Your task to perform on an android device: turn on the 12-hour format for clock Image 0: 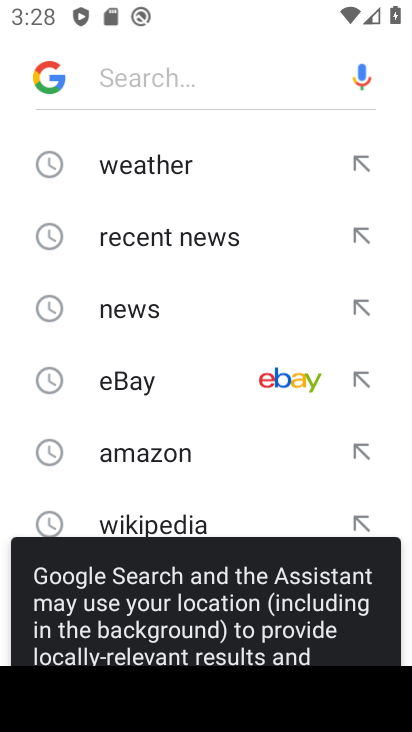
Step 0: press home button
Your task to perform on an android device: turn on the 12-hour format for clock Image 1: 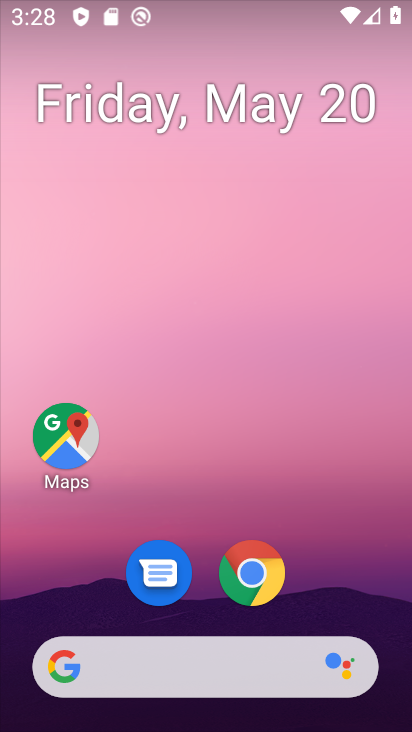
Step 1: drag from (390, 614) to (360, 108)
Your task to perform on an android device: turn on the 12-hour format for clock Image 2: 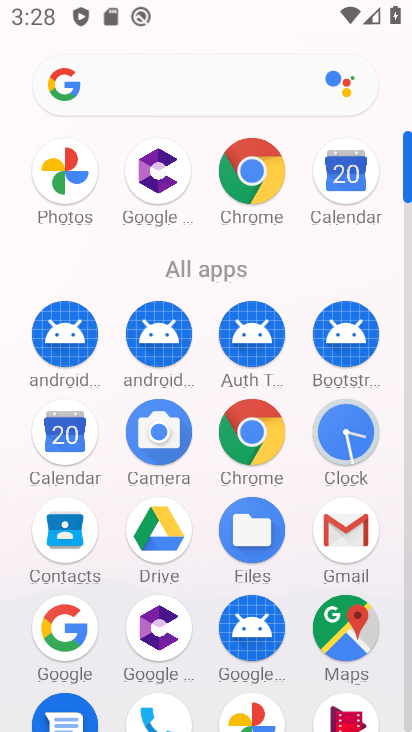
Step 2: click (343, 429)
Your task to perform on an android device: turn on the 12-hour format for clock Image 3: 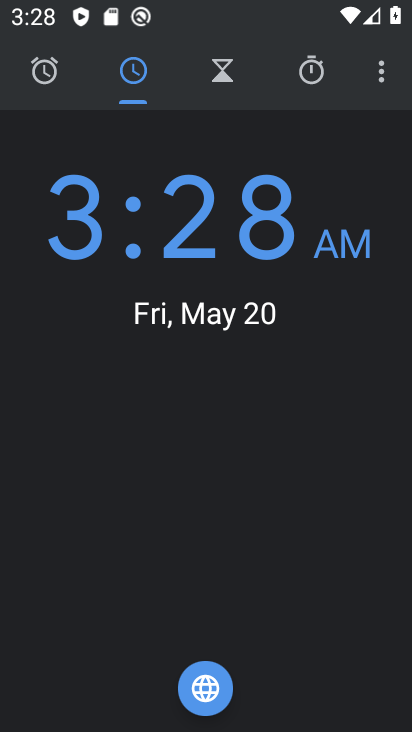
Step 3: click (379, 73)
Your task to perform on an android device: turn on the 12-hour format for clock Image 4: 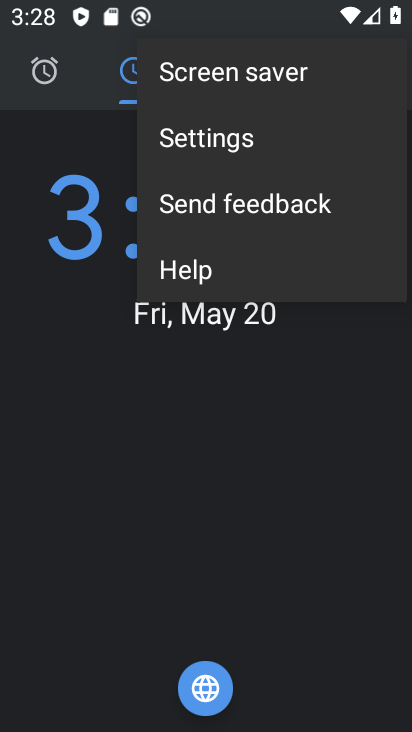
Step 4: click (188, 133)
Your task to perform on an android device: turn on the 12-hour format for clock Image 5: 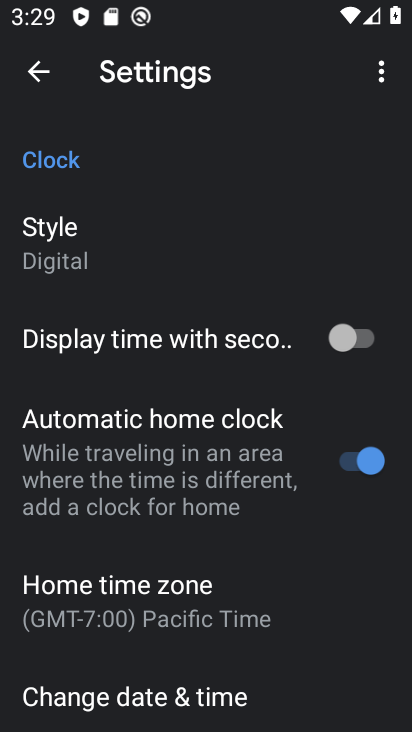
Step 5: drag from (278, 570) to (258, 195)
Your task to perform on an android device: turn on the 12-hour format for clock Image 6: 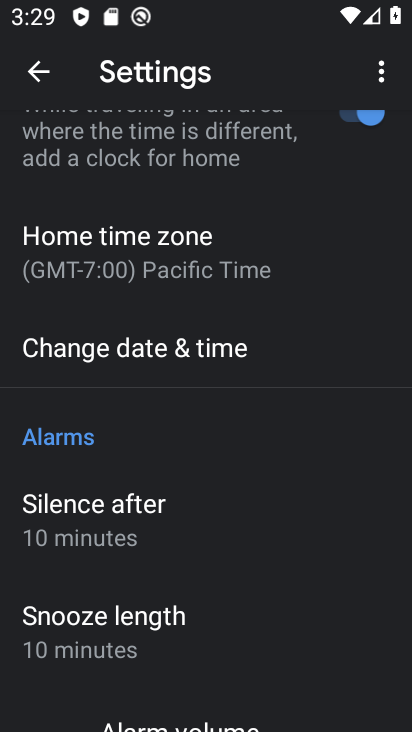
Step 6: click (155, 344)
Your task to perform on an android device: turn on the 12-hour format for clock Image 7: 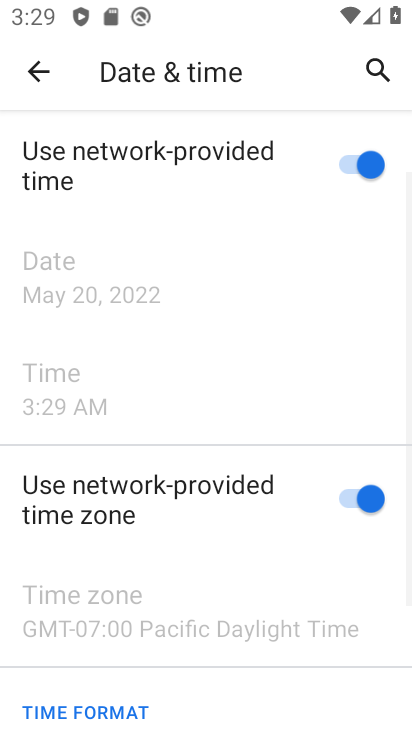
Step 7: task complete